Your task to perform on an android device: Show me recent news Image 0: 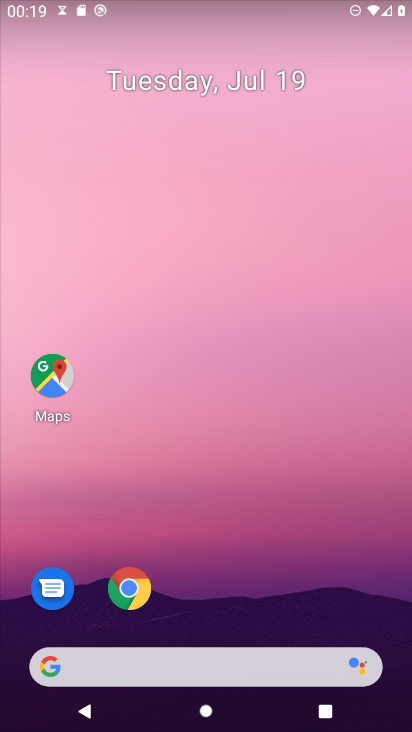
Step 0: press home button
Your task to perform on an android device: Show me recent news Image 1: 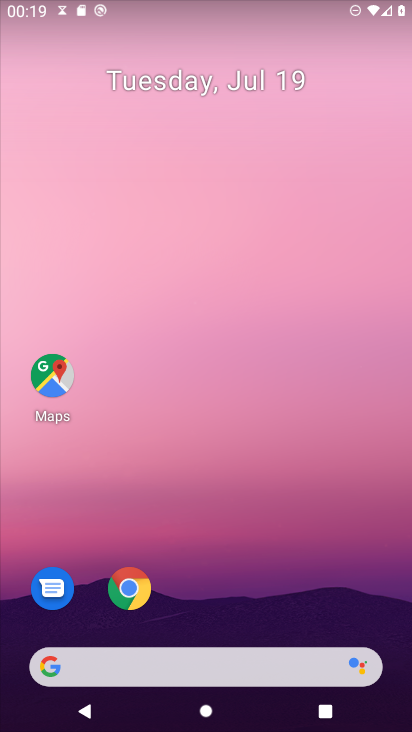
Step 1: click (47, 667)
Your task to perform on an android device: Show me recent news Image 2: 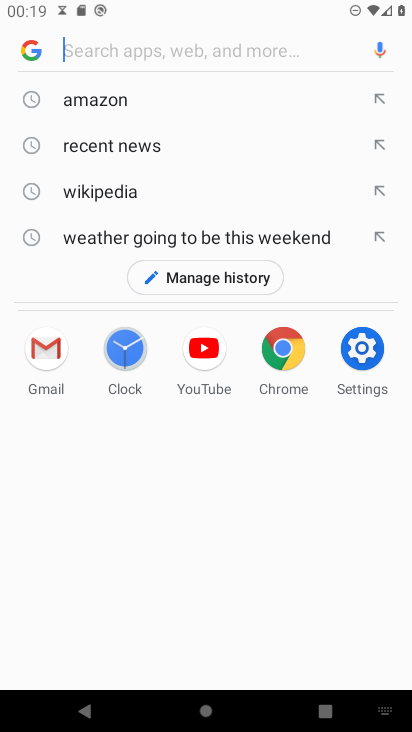
Step 2: click (130, 147)
Your task to perform on an android device: Show me recent news Image 3: 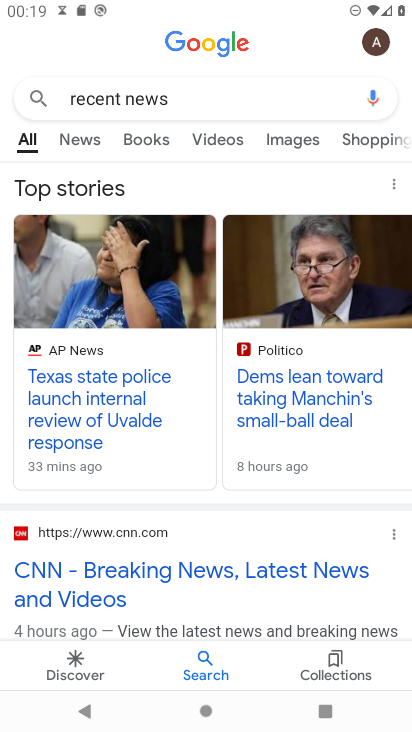
Step 3: task complete